Your task to perform on an android device: turn off location Image 0: 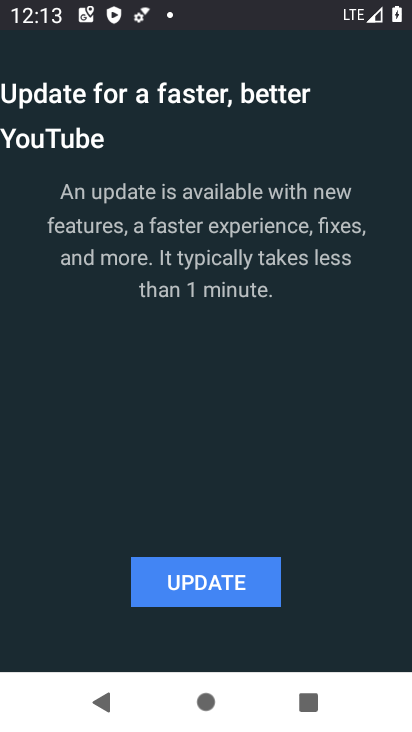
Step 0: press home button
Your task to perform on an android device: turn off location Image 1: 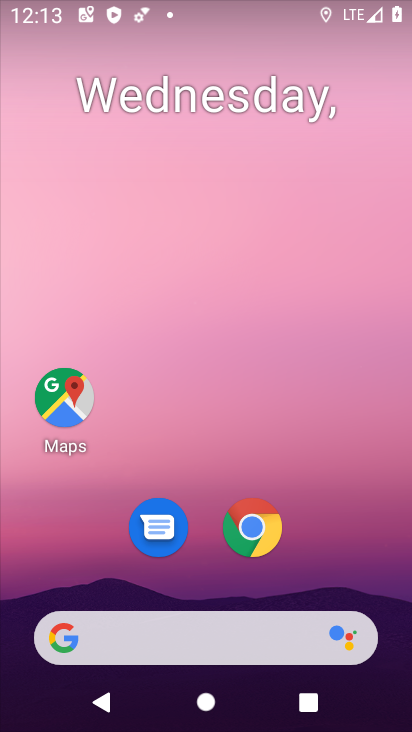
Step 1: drag from (228, 682) to (259, 51)
Your task to perform on an android device: turn off location Image 2: 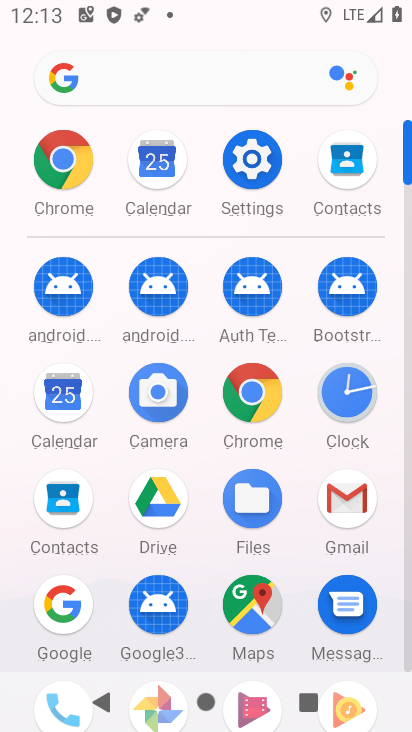
Step 2: click (267, 162)
Your task to perform on an android device: turn off location Image 3: 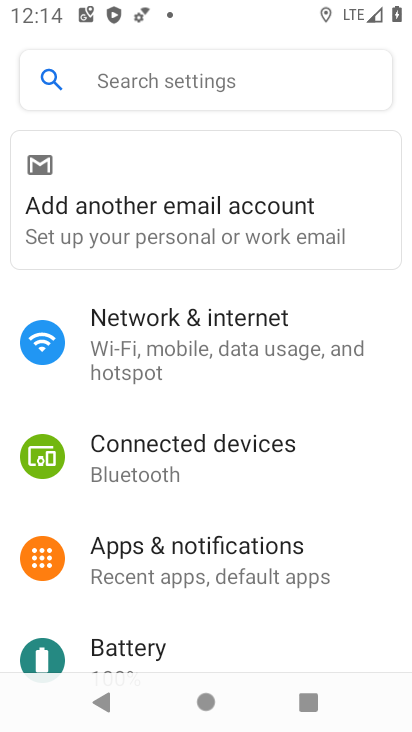
Step 3: drag from (288, 584) to (315, 70)
Your task to perform on an android device: turn off location Image 4: 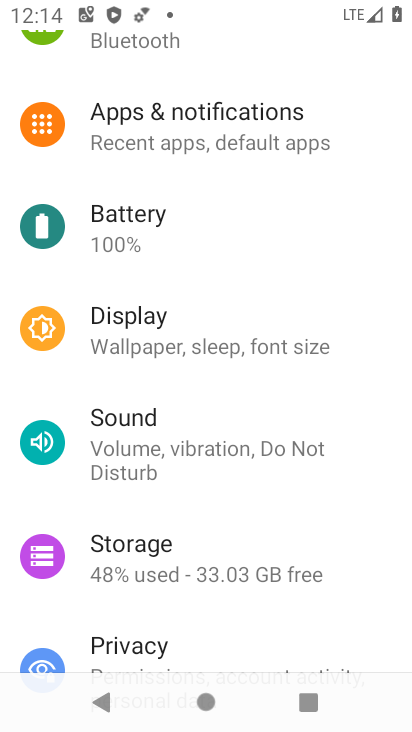
Step 4: drag from (208, 647) to (233, 123)
Your task to perform on an android device: turn off location Image 5: 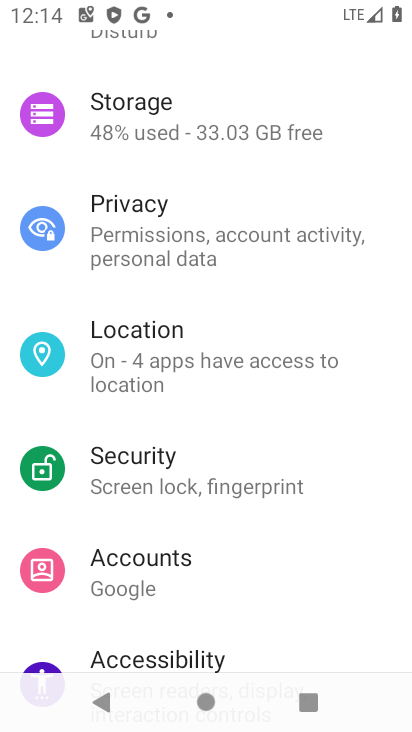
Step 5: click (226, 342)
Your task to perform on an android device: turn off location Image 6: 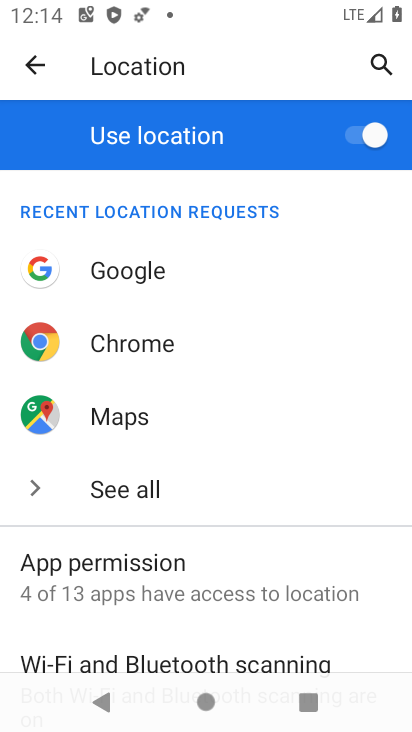
Step 6: click (351, 135)
Your task to perform on an android device: turn off location Image 7: 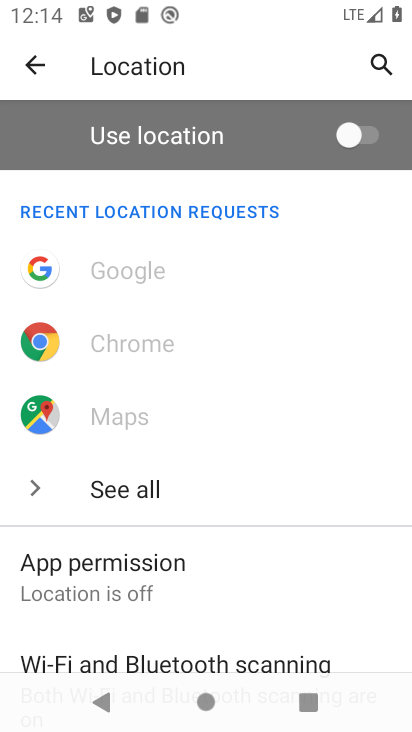
Step 7: task complete